Your task to perform on an android device: Open network settings Image 0: 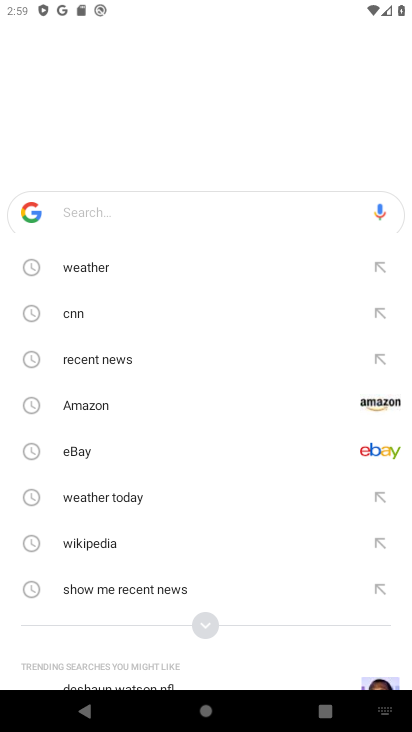
Step 0: press back button
Your task to perform on an android device: Open network settings Image 1: 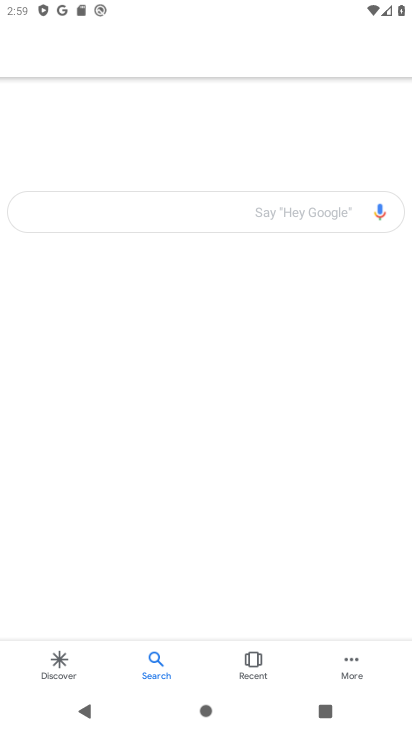
Step 1: press back button
Your task to perform on an android device: Open network settings Image 2: 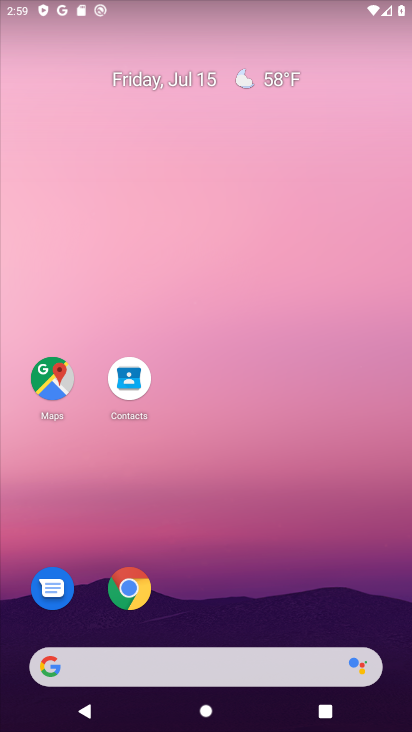
Step 2: drag from (239, 642) to (157, 49)
Your task to perform on an android device: Open network settings Image 3: 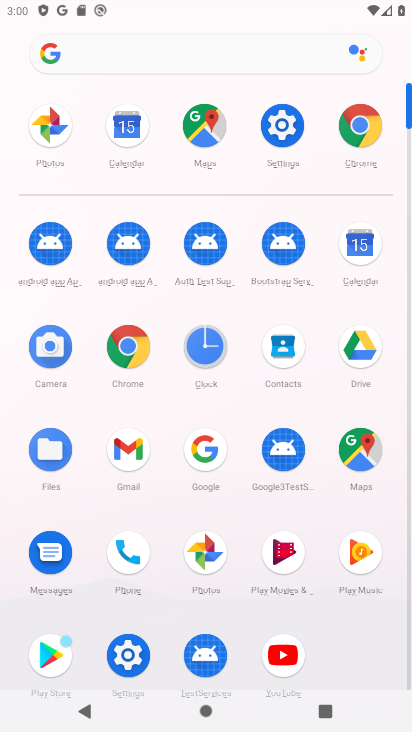
Step 3: click (270, 148)
Your task to perform on an android device: Open network settings Image 4: 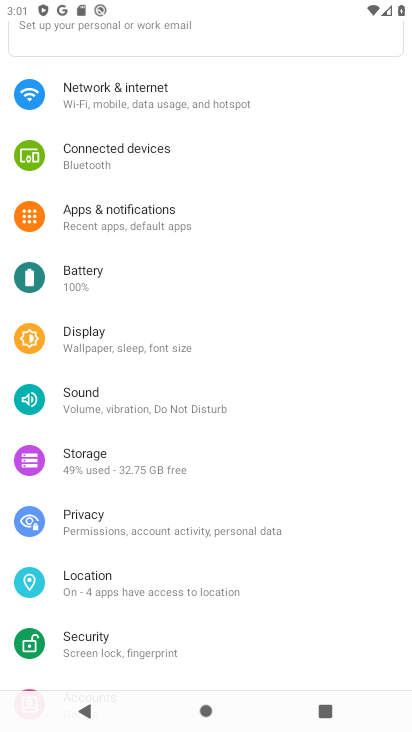
Step 4: click (112, 104)
Your task to perform on an android device: Open network settings Image 5: 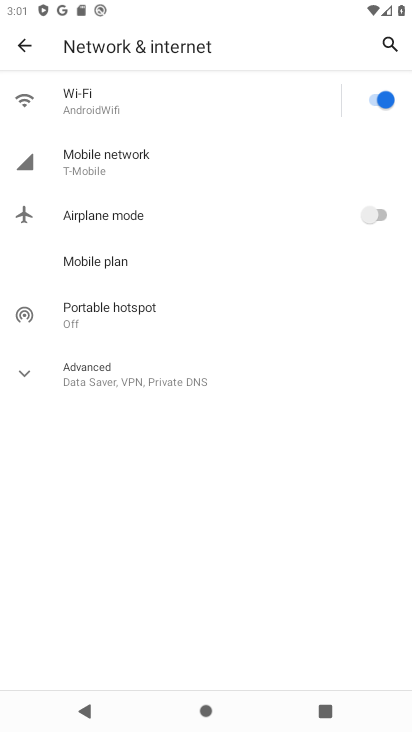
Step 5: task complete